Your task to perform on an android device: View the shopping cart on bestbuy.com. Search for "bose soundlink mini" on bestbuy.com, select the first entry, and add it to the cart. Image 0: 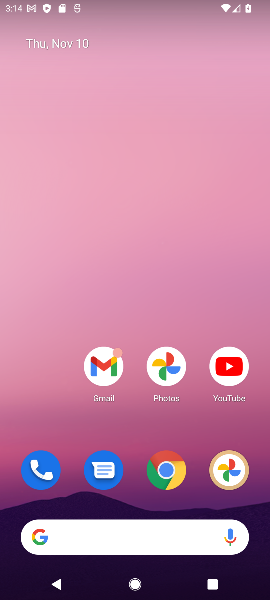
Step 0: click (170, 470)
Your task to perform on an android device: View the shopping cart on bestbuy.com. Search for "bose soundlink mini" on bestbuy.com, select the first entry, and add it to the cart. Image 1: 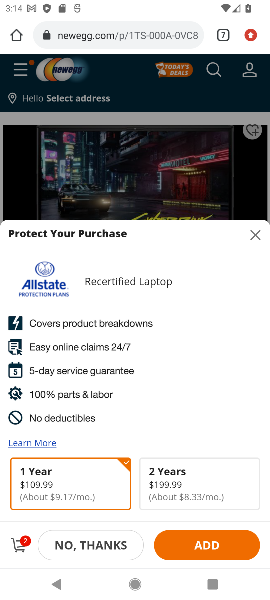
Step 1: click (225, 35)
Your task to perform on an android device: View the shopping cart on bestbuy.com. Search for "bose soundlink mini" on bestbuy.com, select the first entry, and add it to the cart. Image 2: 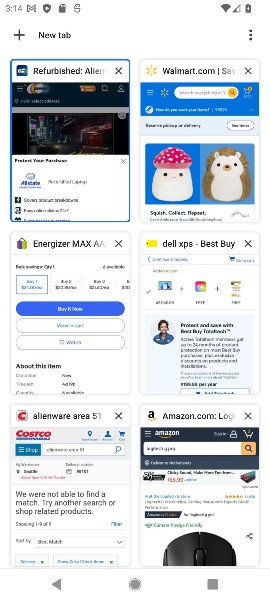
Step 2: click (201, 302)
Your task to perform on an android device: View the shopping cart on bestbuy.com. Search for "bose soundlink mini" on bestbuy.com, select the first entry, and add it to the cart. Image 3: 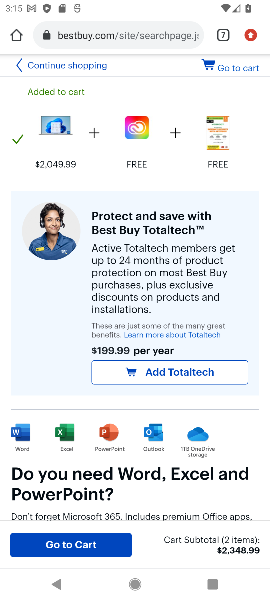
Step 3: click (64, 62)
Your task to perform on an android device: View the shopping cart on bestbuy.com. Search for "bose soundlink mini" on bestbuy.com, select the first entry, and add it to the cart. Image 4: 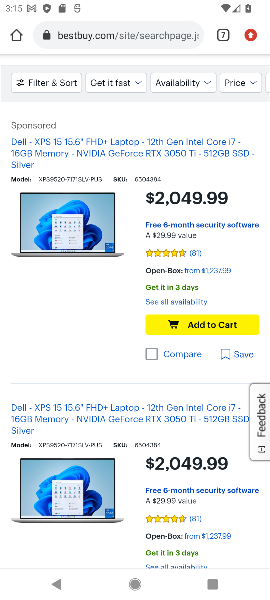
Step 4: drag from (175, 121) to (168, 438)
Your task to perform on an android device: View the shopping cart on bestbuy.com. Search for "bose soundlink mini" on bestbuy.com, select the first entry, and add it to the cart. Image 5: 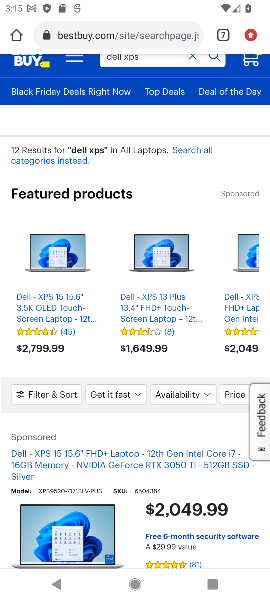
Step 5: drag from (159, 78) to (167, 163)
Your task to perform on an android device: View the shopping cart on bestbuy.com. Search for "bose soundlink mini" on bestbuy.com, select the first entry, and add it to the cart. Image 6: 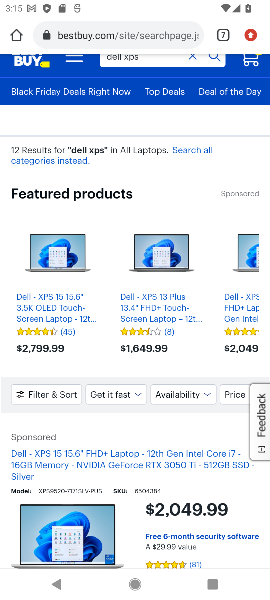
Step 6: click (191, 58)
Your task to perform on an android device: View the shopping cart on bestbuy.com. Search for "bose soundlink mini" on bestbuy.com, select the first entry, and add it to the cart. Image 7: 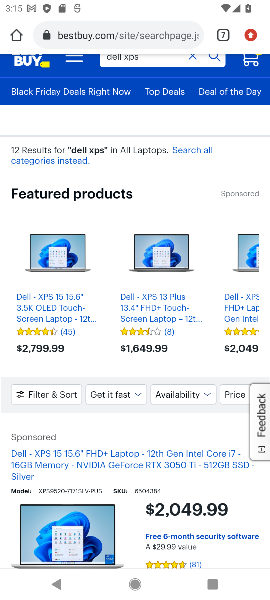
Step 7: click (193, 56)
Your task to perform on an android device: View the shopping cart on bestbuy.com. Search for "bose soundlink mini" on bestbuy.com, select the first entry, and add it to the cart. Image 8: 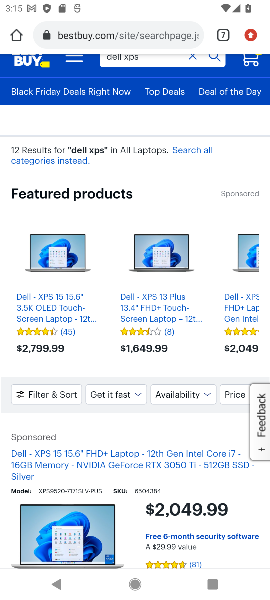
Step 8: drag from (153, 139) to (152, 272)
Your task to perform on an android device: View the shopping cart on bestbuy.com. Search for "bose soundlink mini" on bestbuy.com, select the first entry, and add it to the cart. Image 9: 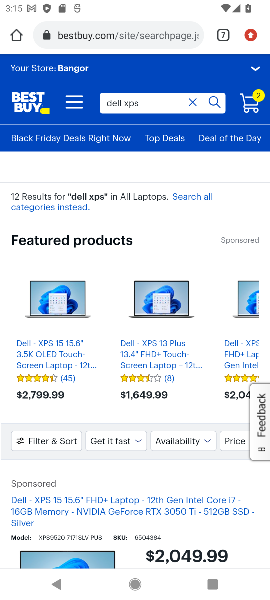
Step 9: click (193, 100)
Your task to perform on an android device: View the shopping cart on bestbuy.com. Search for "bose soundlink mini" on bestbuy.com, select the first entry, and add it to the cart. Image 10: 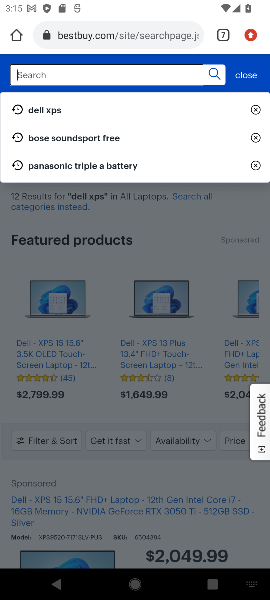
Step 10: type "bose soundlink mini"
Your task to perform on an android device: View the shopping cart on bestbuy.com. Search for "bose soundlink mini" on bestbuy.com, select the first entry, and add it to the cart. Image 11: 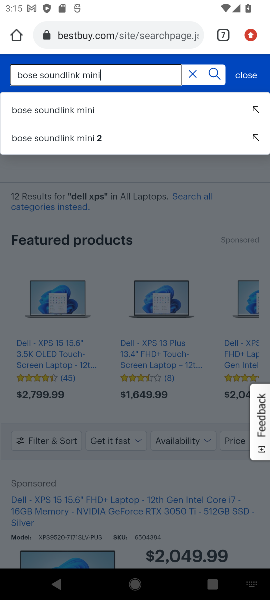
Step 11: click (57, 110)
Your task to perform on an android device: View the shopping cart on bestbuy.com. Search for "bose soundlink mini" on bestbuy.com, select the first entry, and add it to the cart. Image 12: 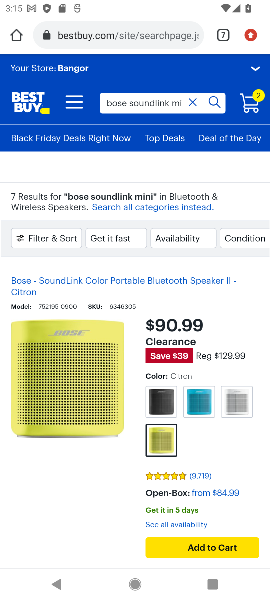
Step 12: click (194, 545)
Your task to perform on an android device: View the shopping cart on bestbuy.com. Search for "bose soundlink mini" on bestbuy.com, select the first entry, and add it to the cart. Image 13: 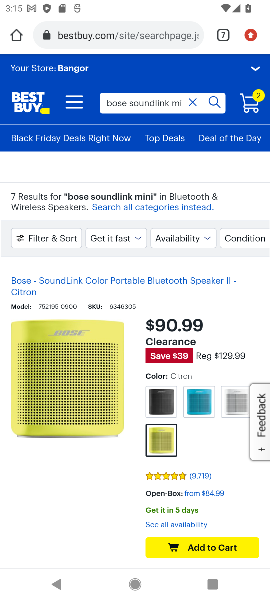
Step 13: click (182, 545)
Your task to perform on an android device: View the shopping cart on bestbuy.com. Search for "bose soundlink mini" on bestbuy.com, select the first entry, and add it to the cart. Image 14: 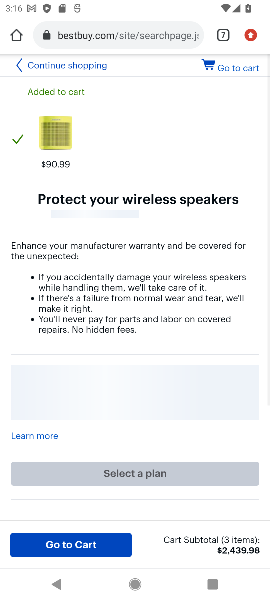
Step 14: task complete